Your task to perform on an android device: Go to CNN.com Image 0: 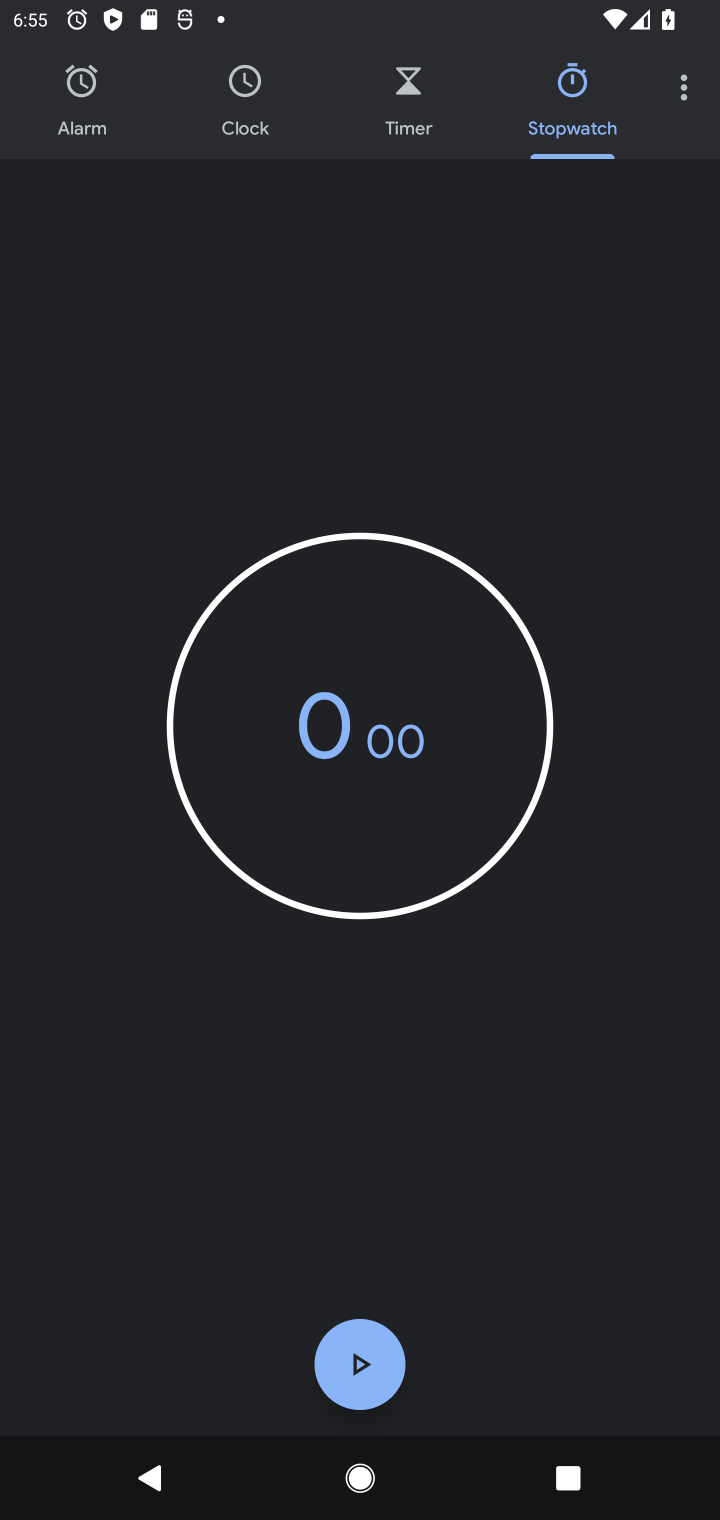
Step 0: press home button
Your task to perform on an android device: Go to CNN.com Image 1: 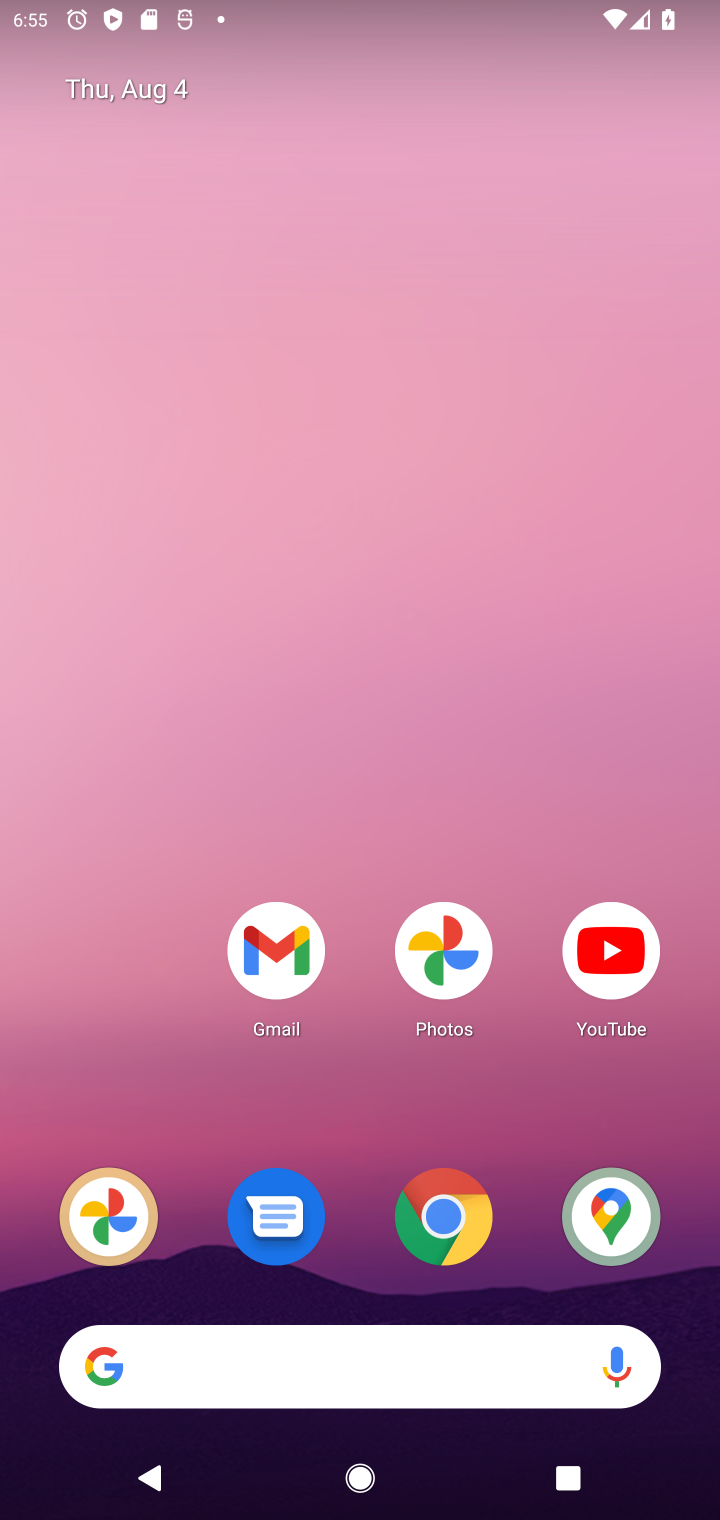
Step 1: click (437, 1218)
Your task to perform on an android device: Go to CNN.com Image 2: 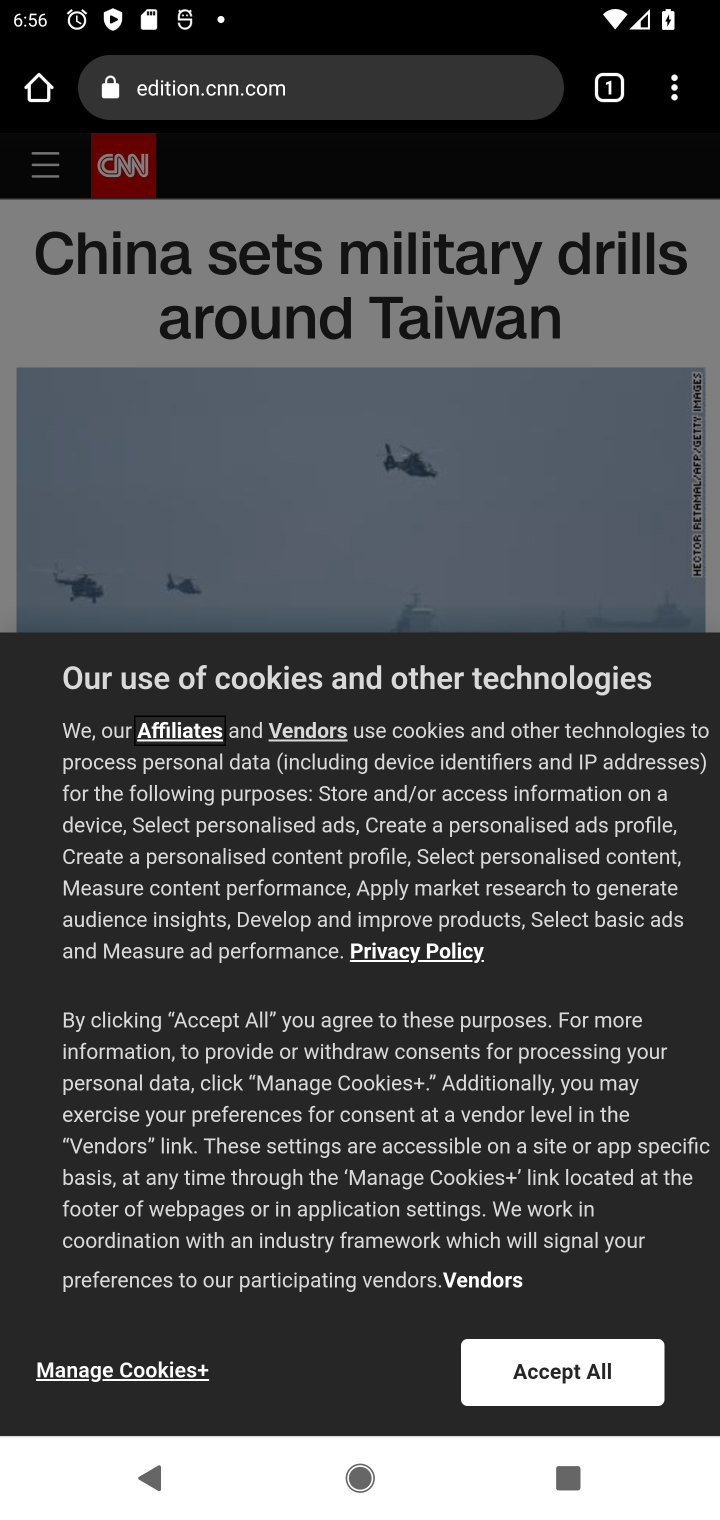
Step 2: task complete